Your task to perform on an android device: toggle javascript in the chrome app Image 0: 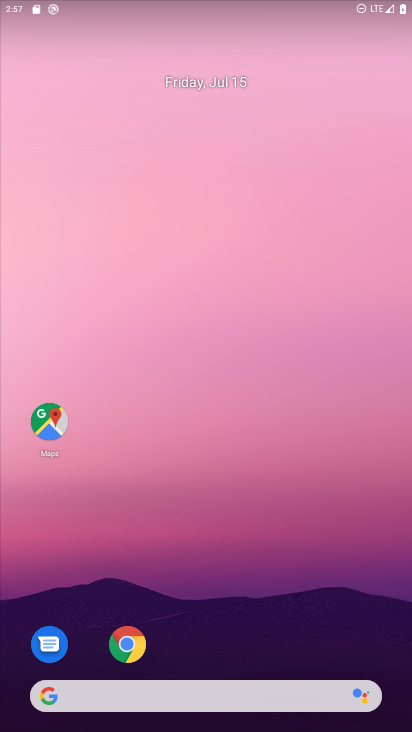
Step 0: click (138, 632)
Your task to perform on an android device: toggle javascript in the chrome app Image 1: 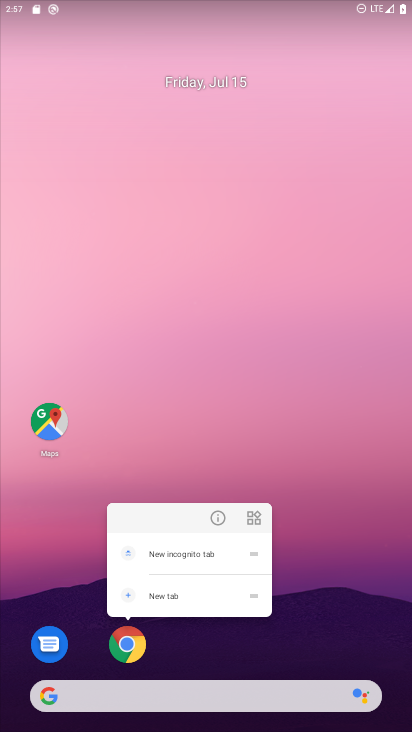
Step 1: click (128, 642)
Your task to perform on an android device: toggle javascript in the chrome app Image 2: 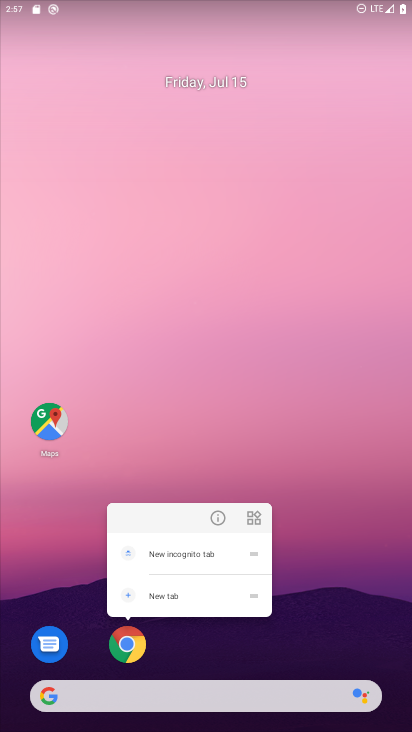
Step 2: click (121, 648)
Your task to perform on an android device: toggle javascript in the chrome app Image 3: 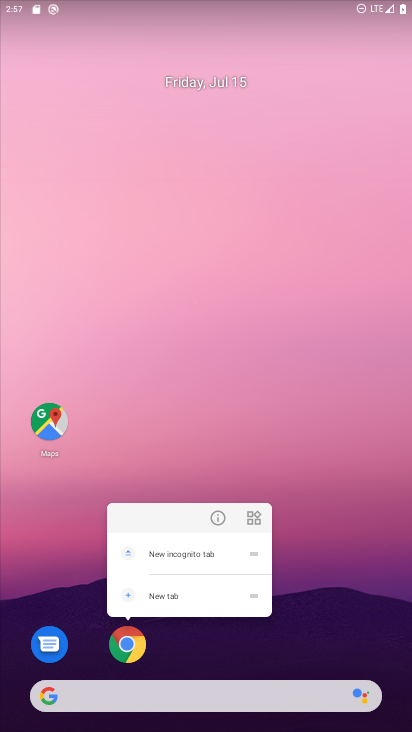
Step 3: click (121, 642)
Your task to perform on an android device: toggle javascript in the chrome app Image 4: 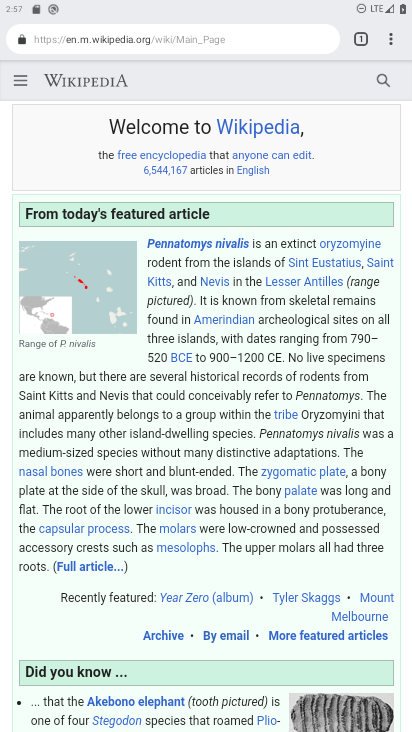
Step 4: click (386, 39)
Your task to perform on an android device: toggle javascript in the chrome app Image 5: 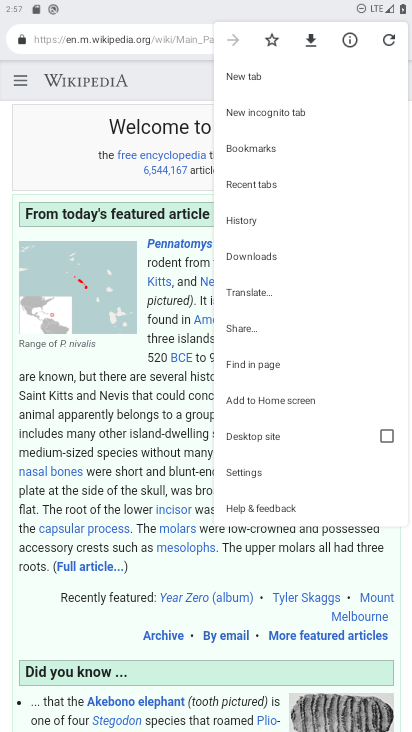
Step 5: click (280, 469)
Your task to perform on an android device: toggle javascript in the chrome app Image 6: 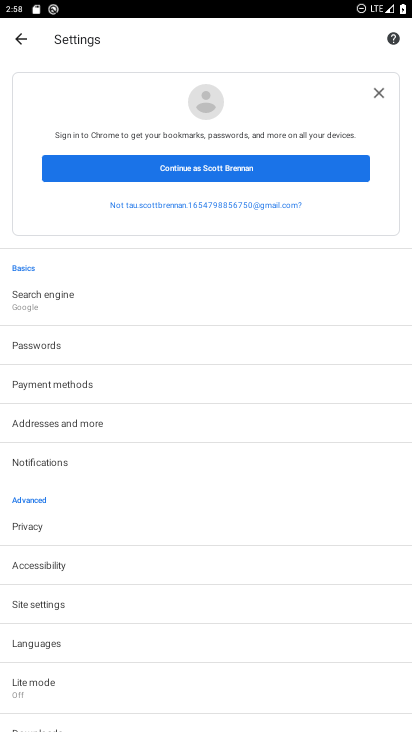
Step 6: click (54, 599)
Your task to perform on an android device: toggle javascript in the chrome app Image 7: 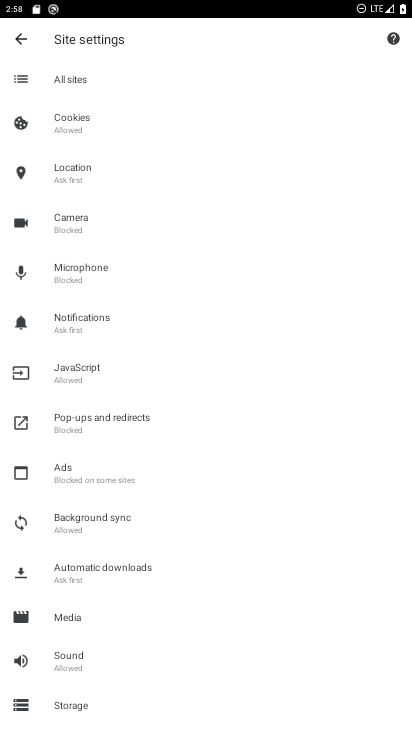
Step 7: click (121, 365)
Your task to perform on an android device: toggle javascript in the chrome app Image 8: 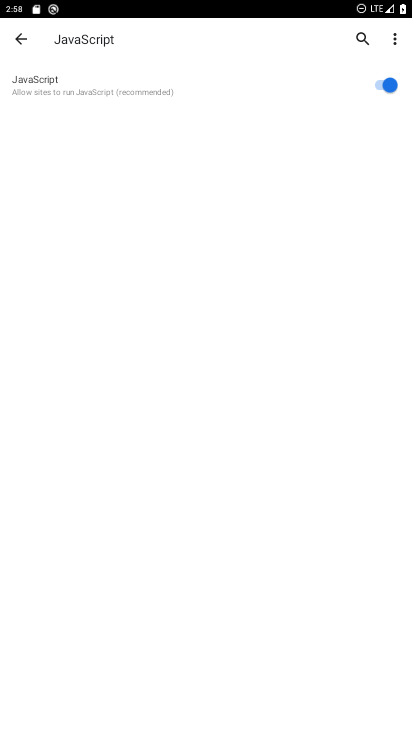
Step 8: task complete